Your task to perform on an android device: find which apps use the phone's location Image 0: 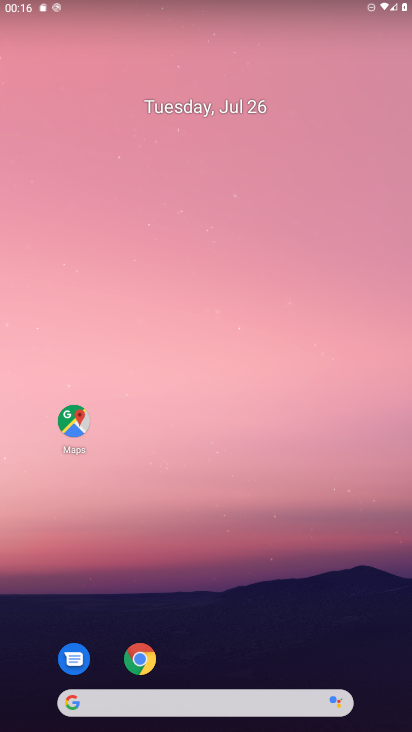
Step 0: press home button
Your task to perform on an android device: find which apps use the phone's location Image 1: 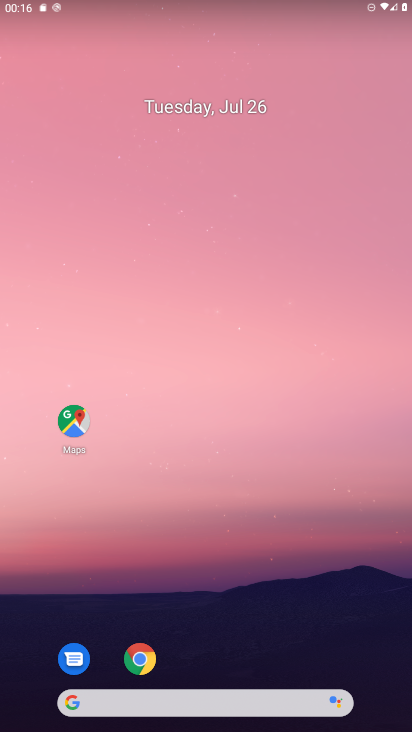
Step 1: drag from (314, 633) to (251, 107)
Your task to perform on an android device: find which apps use the phone's location Image 2: 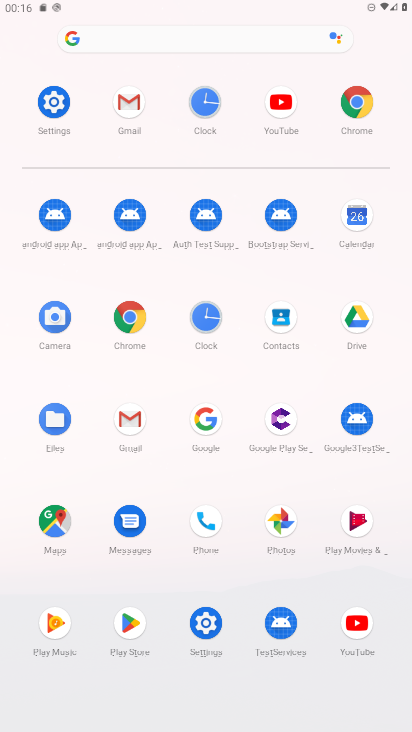
Step 2: click (197, 501)
Your task to perform on an android device: find which apps use the phone's location Image 3: 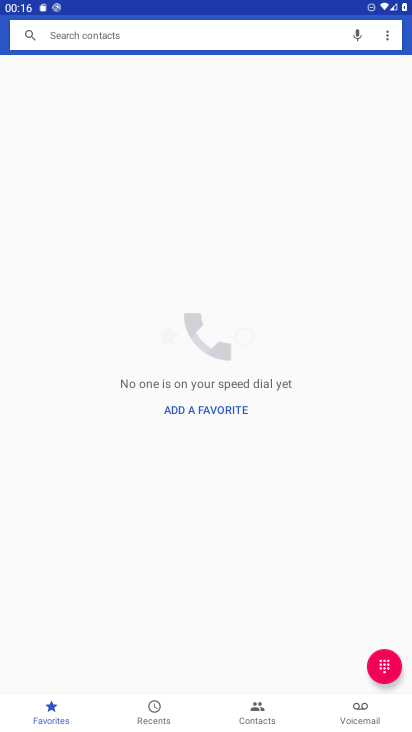
Step 3: press home button
Your task to perform on an android device: find which apps use the phone's location Image 4: 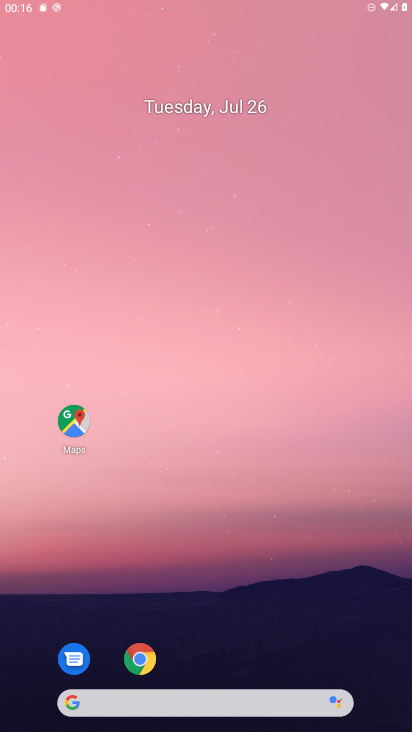
Step 4: drag from (184, 634) to (83, 137)
Your task to perform on an android device: find which apps use the phone's location Image 5: 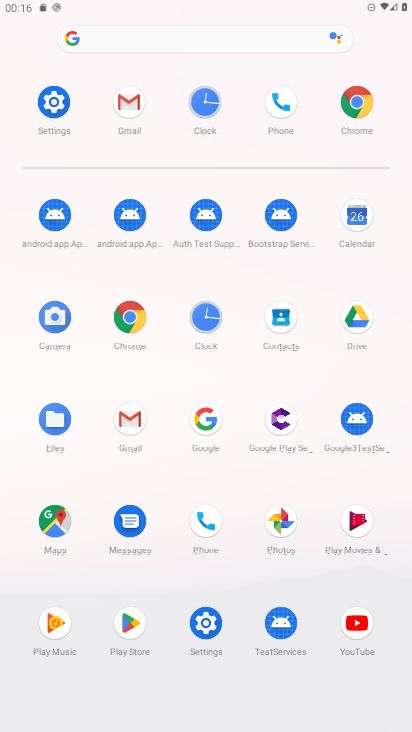
Step 5: click (202, 498)
Your task to perform on an android device: find which apps use the phone's location Image 6: 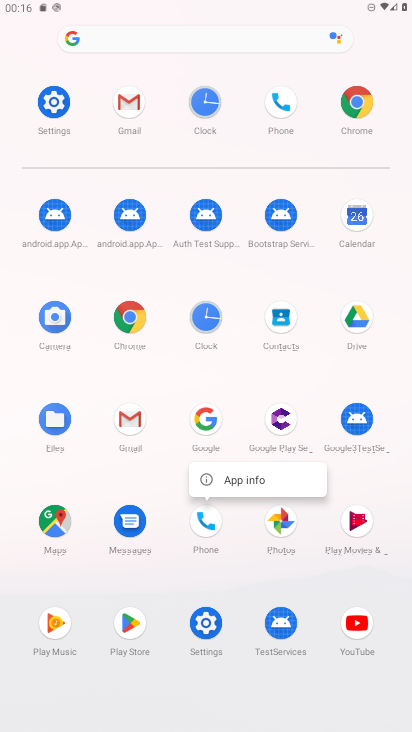
Step 6: click (217, 469)
Your task to perform on an android device: find which apps use the phone's location Image 7: 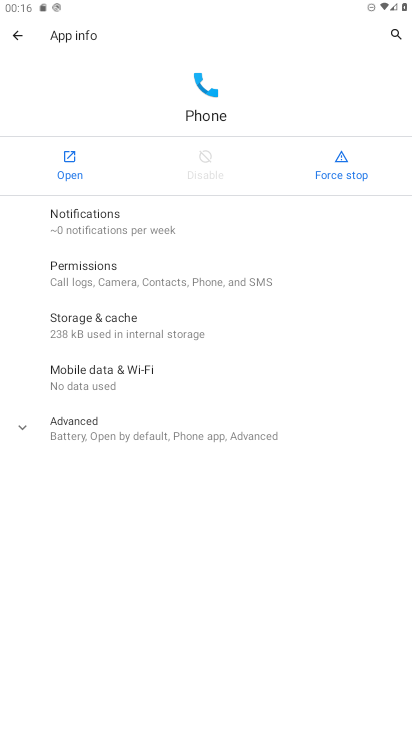
Step 7: click (94, 280)
Your task to perform on an android device: find which apps use the phone's location Image 8: 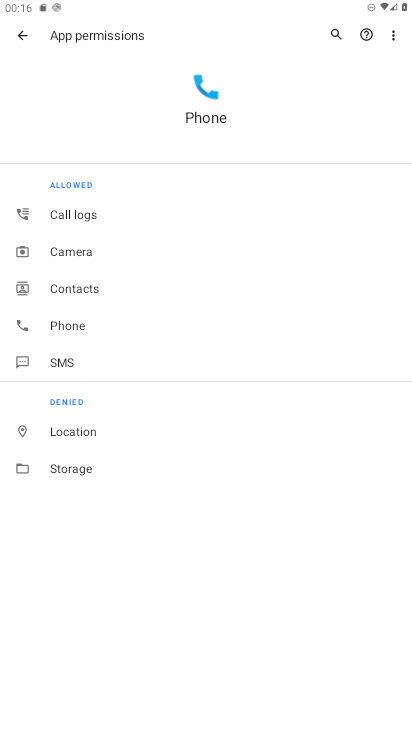
Step 8: click (74, 433)
Your task to perform on an android device: find which apps use the phone's location Image 9: 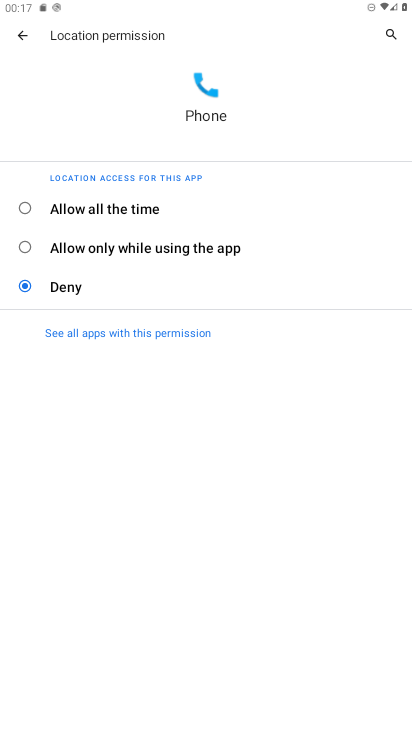
Step 9: click (73, 323)
Your task to perform on an android device: find which apps use the phone's location Image 10: 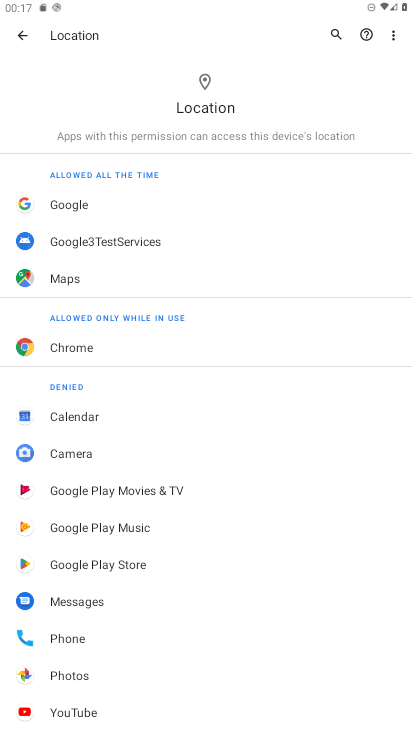
Step 10: task complete